Your task to perform on an android device: Go to settings Image 0: 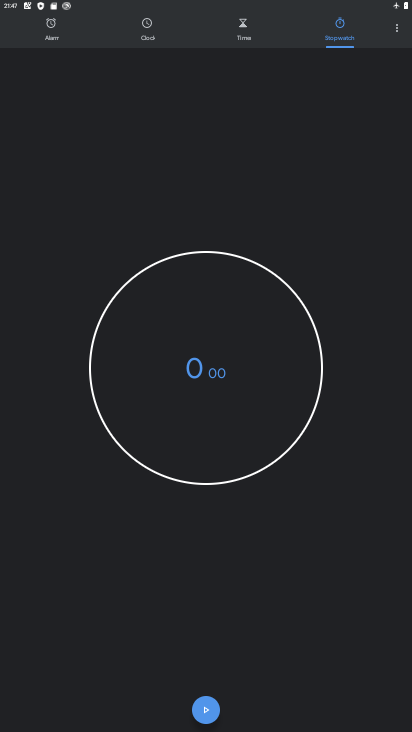
Step 0: press home button
Your task to perform on an android device: Go to settings Image 1: 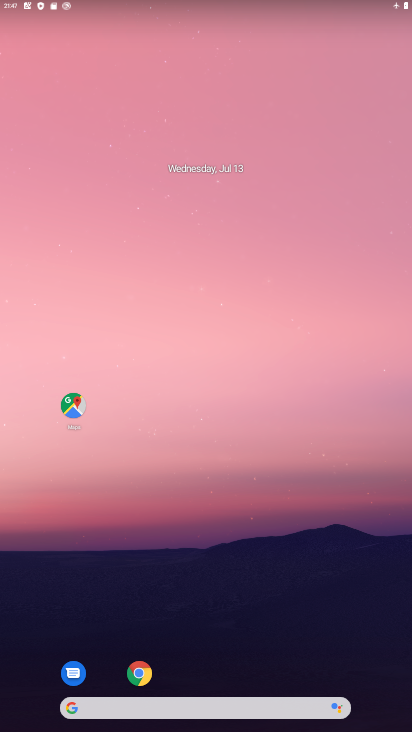
Step 1: drag from (215, 673) to (222, 94)
Your task to perform on an android device: Go to settings Image 2: 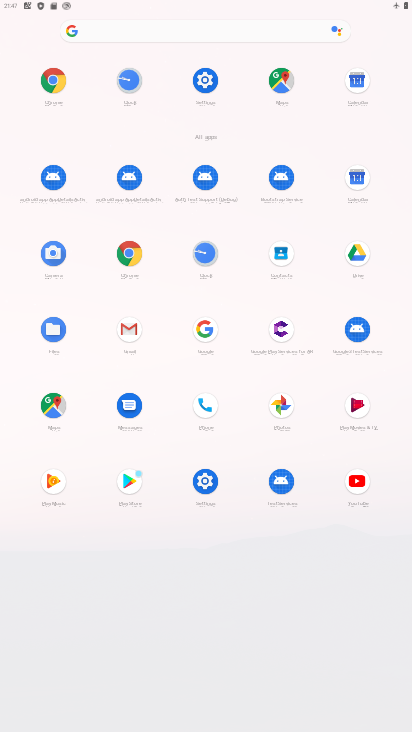
Step 2: click (220, 80)
Your task to perform on an android device: Go to settings Image 3: 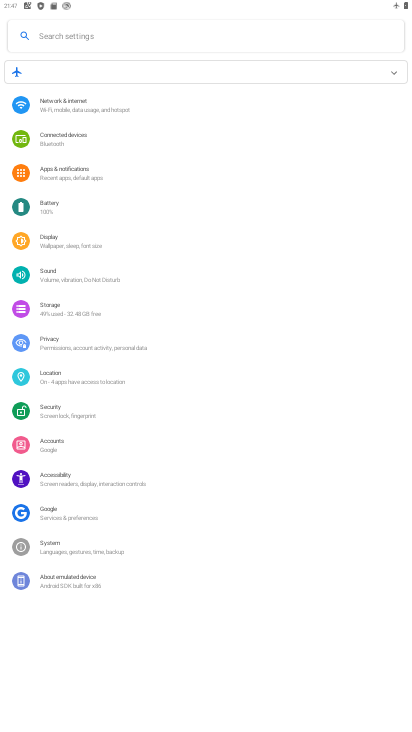
Step 3: task complete